Your task to perform on an android device: refresh tabs in the chrome app Image 0: 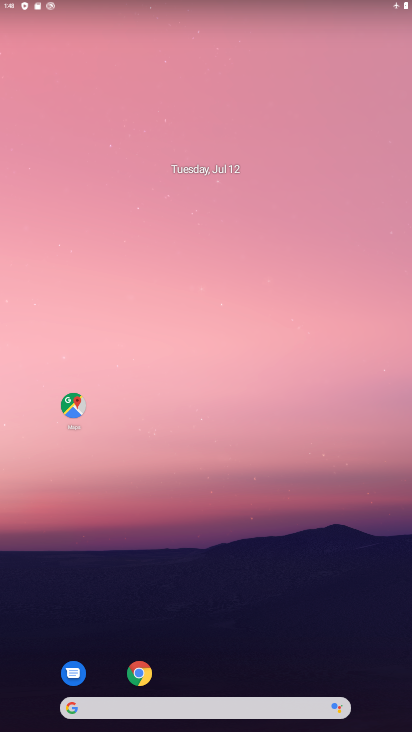
Step 0: drag from (166, 659) to (275, 118)
Your task to perform on an android device: refresh tabs in the chrome app Image 1: 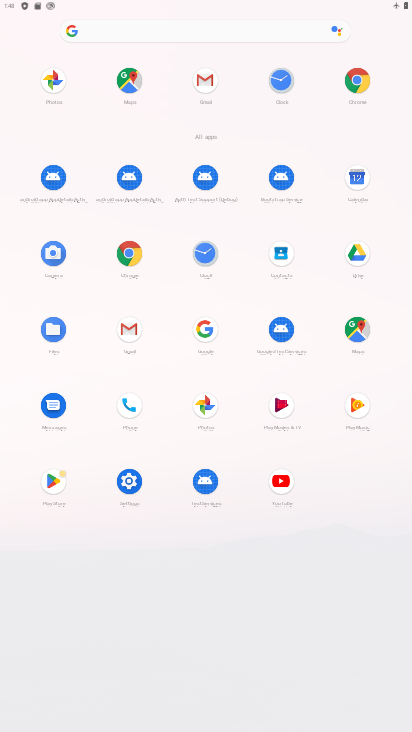
Step 1: click (132, 246)
Your task to perform on an android device: refresh tabs in the chrome app Image 2: 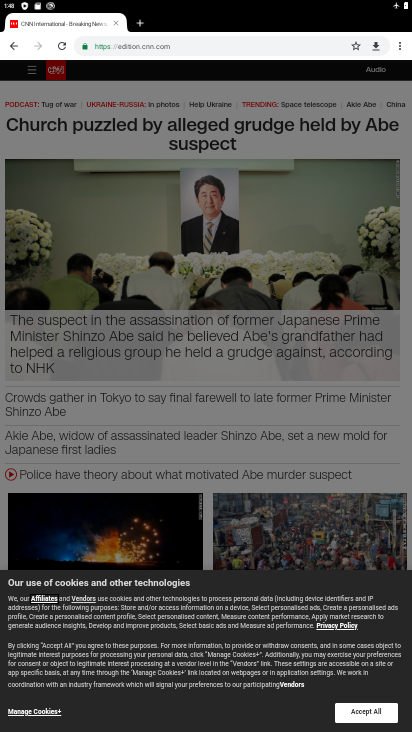
Step 2: drag from (399, 43) to (405, 116)
Your task to perform on an android device: refresh tabs in the chrome app Image 3: 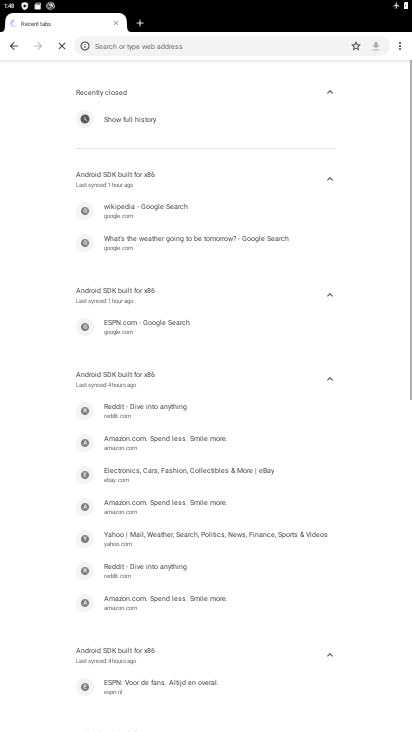
Step 3: click (403, 48)
Your task to perform on an android device: refresh tabs in the chrome app Image 4: 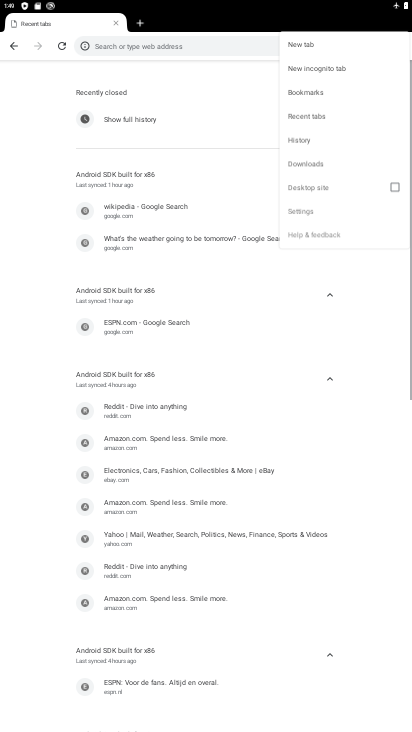
Step 4: click (403, 48)
Your task to perform on an android device: refresh tabs in the chrome app Image 5: 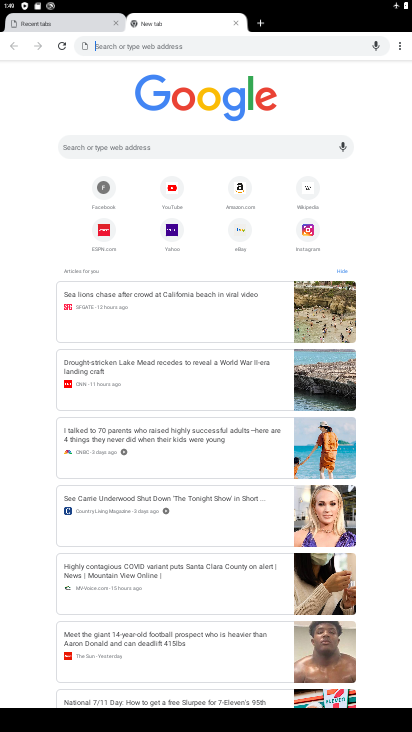
Step 5: task complete